Your task to perform on an android device: find photos in the google photos app Image 0: 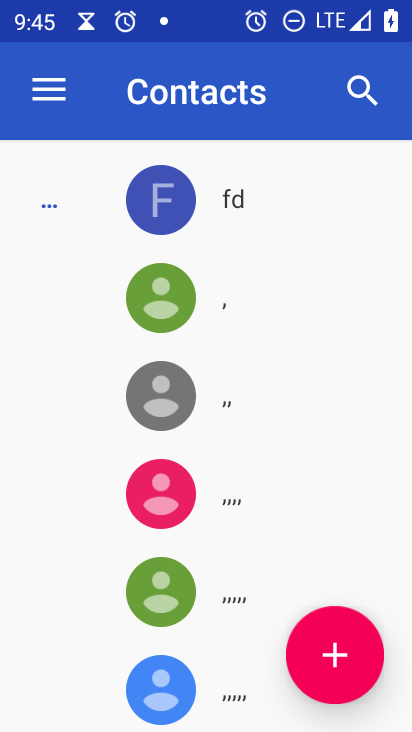
Step 0: press home button
Your task to perform on an android device: find photos in the google photos app Image 1: 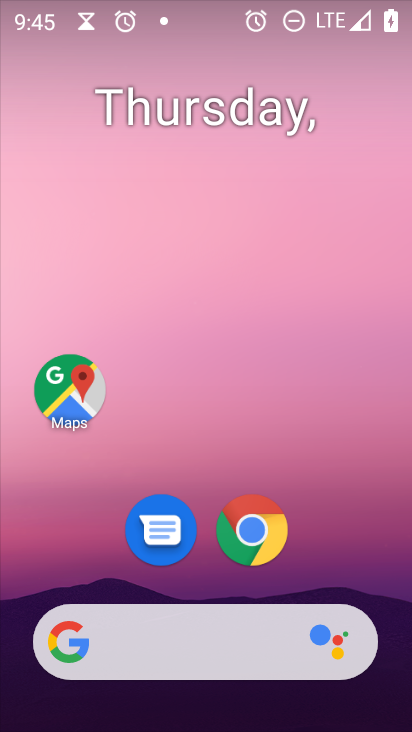
Step 1: drag from (340, 413) to (282, 32)
Your task to perform on an android device: find photos in the google photos app Image 2: 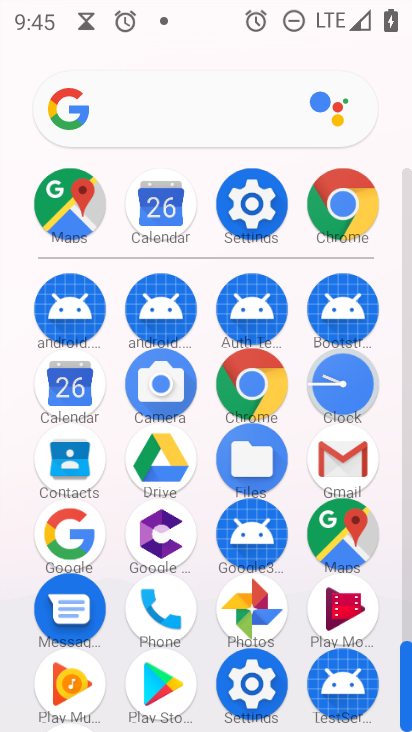
Step 2: drag from (8, 541) to (29, 250)
Your task to perform on an android device: find photos in the google photos app Image 3: 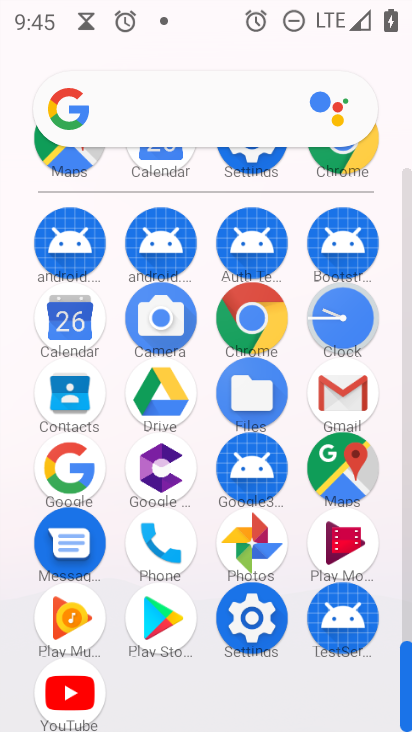
Step 3: click (250, 542)
Your task to perform on an android device: find photos in the google photos app Image 4: 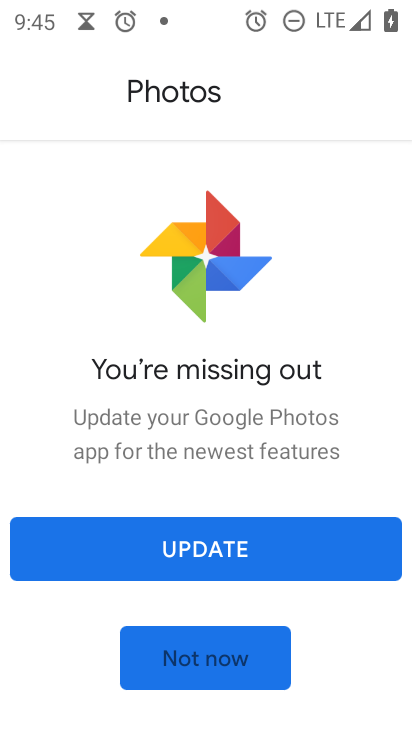
Step 4: click (250, 542)
Your task to perform on an android device: find photos in the google photos app Image 5: 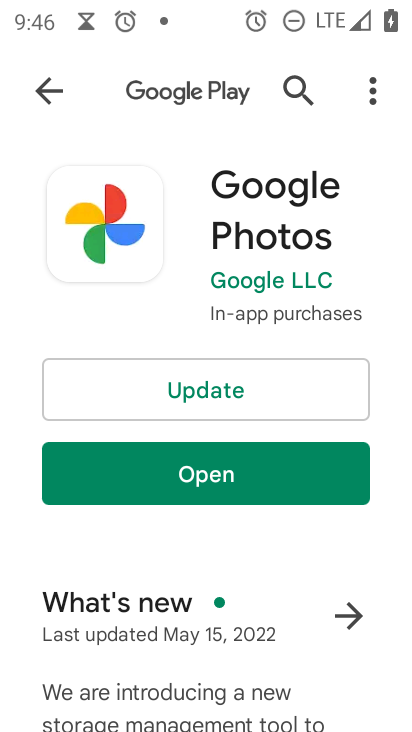
Step 5: click (211, 399)
Your task to perform on an android device: find photos in the google photos app Image 6: 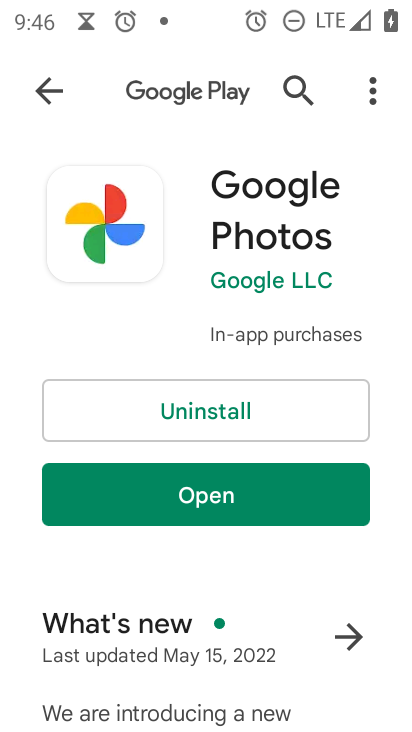
Step 6: click (207, 481)
Your task to perform on an android device: find photos in the google photos app Image 7: 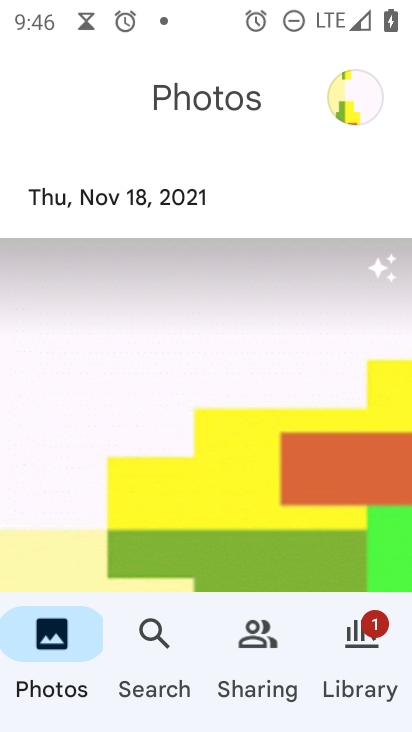
Step 7: task complete